Your task to perform on an android device: Open the phone app and click the voicemail tab. Image 0: 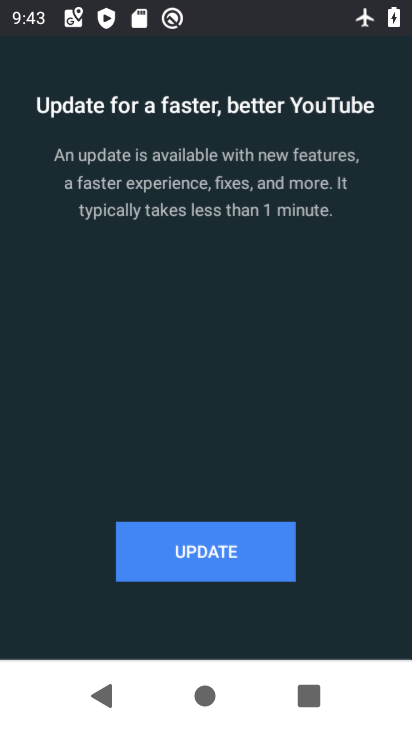
Step 0: drag from (224, 559) to (224, 441)
Your task to perform on an android device: Open the phone app and click the voicemail tab. Image 1: 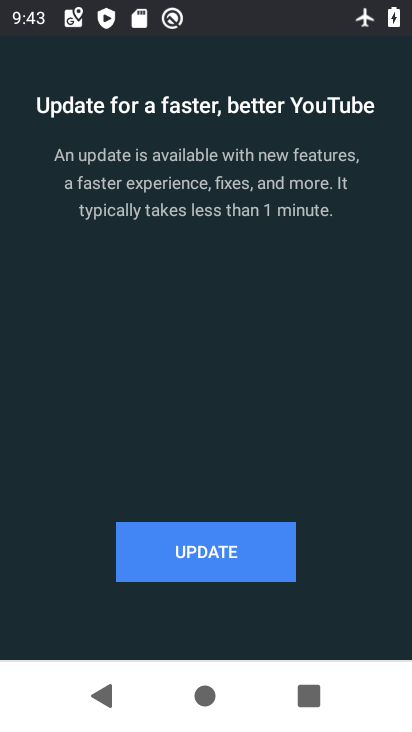
Step 1: press home button
Your task to perform on an android device: Open the phone app and click the voicemail tab. Image 2: 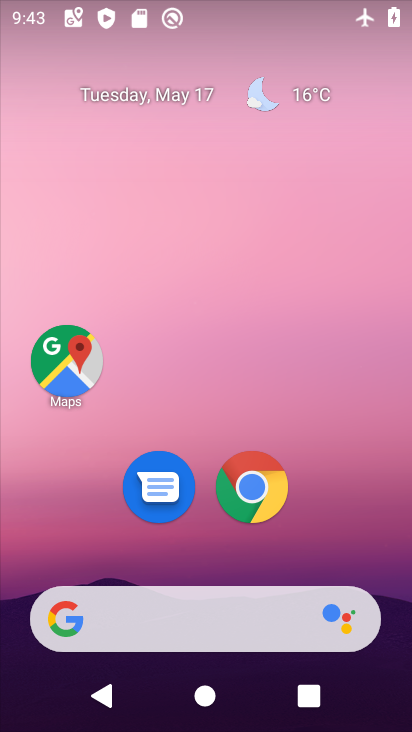
Step 2: drag from (229, 554) to (260, 121)
Your task to perform on an android device: Open the phone app and click the voicemail tab. Image 3: 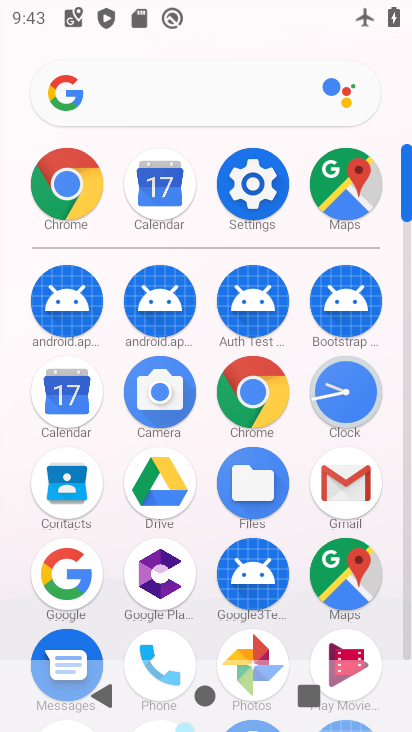
Step 3: drag from (219, 563) to (225, 264)
Your task to perform on an android device: Open the phone app and click the voicemail tab. Image 4: 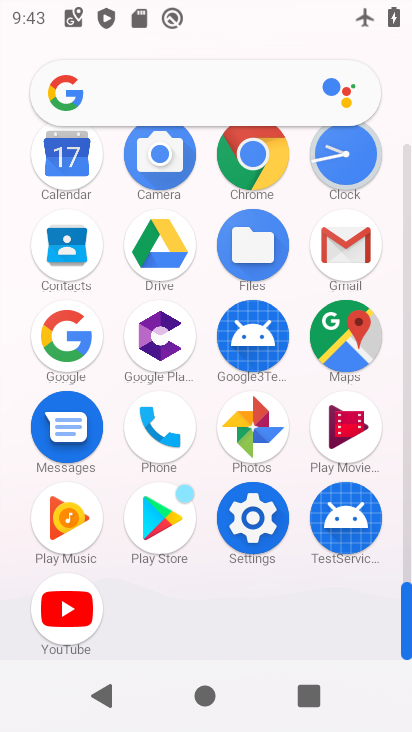
Step 4: click (157, 424)
Your task to perform on an android device: Open the phone app and click the voicemail tab. Image 5: 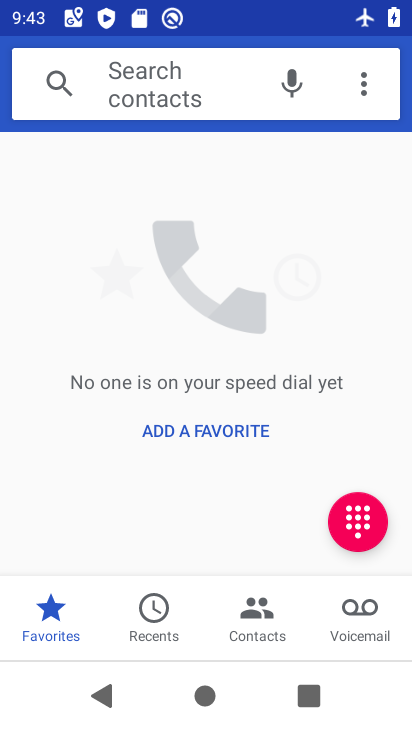
Step 5: click (366, 597)
Your task to perform on an android device: Open the phone app and click the voicemail tab. Image 6: 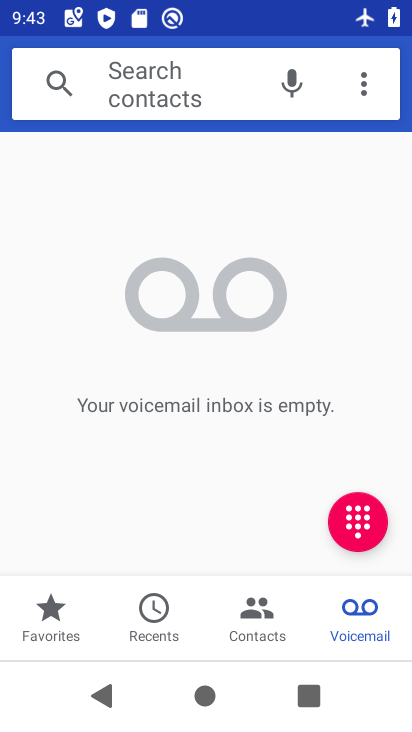
Step 6: task complete